Your task to perform on an android device: open app "ColorNote Notepad Notes" (install if not already installed) Image 0: 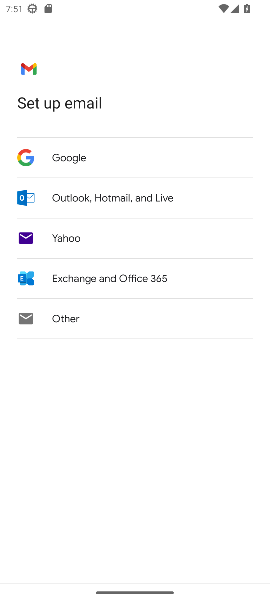
Step 0: press home button
Your task to perform on an android device: open app "ColorNote Notepad Notes" (install if not already installed) Image 1: 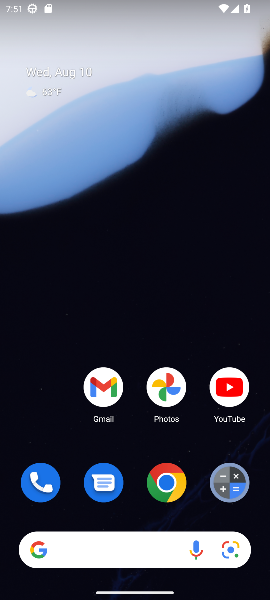
Step 1: drag from (144, 404) to (247, 0)
Your task to perform on an android device: open app "ColorNote Notepad Notes" (install if not already installed) Image 2: 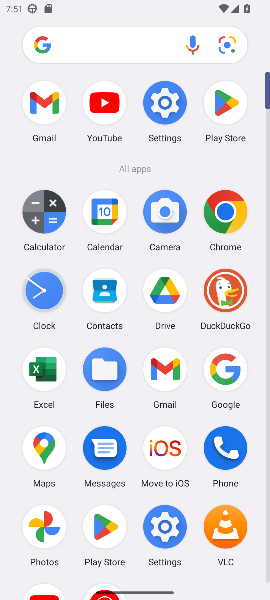
Step 2: click (102, 537)
Your task to perform on an android device: open app "ColorNote Notepad Notes" (install if not already installed) Image 3: 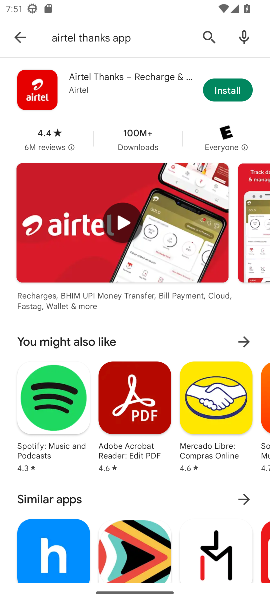
Step 3: click (108, 37)
Your task to perform on an android device: open app "ColorNote Notepad Notes" (install if not already installed) Image 4: 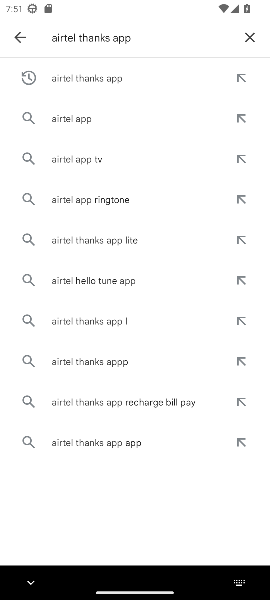
Step 4: click (250, 30)
Your task to perform on an android device: open app "ColorNote Notepad Notes" (install if not already installed) Image 5: 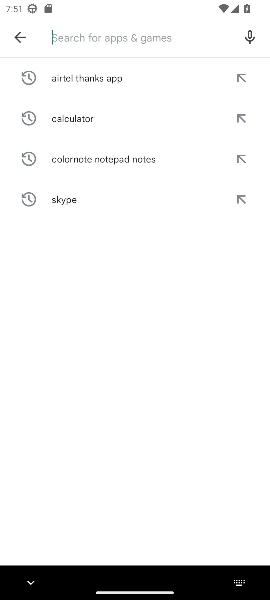
Step 5: type "ColoNote Notepad Notes"
Your task to perform on an android device: open app "ColorNote Notepad Notes" (install if not already installed) Image 6: 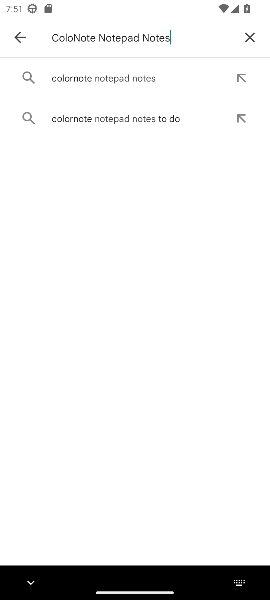
Step 6: click (138, 83)
Your task to perform on an android device: open app "ColorNote Notepad Notes" (install if not already installed) Image 7: 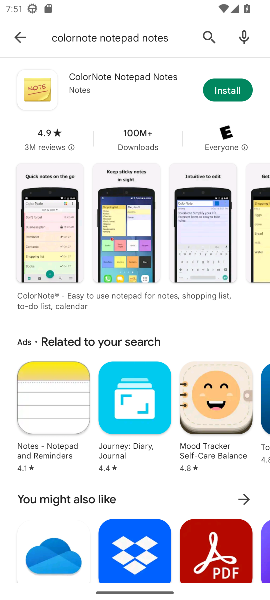
Step 7: click (230, 91)
Your task to perform on an android device: open app "ColorNote Notepad Notes" (install if not already installed) Image 8: 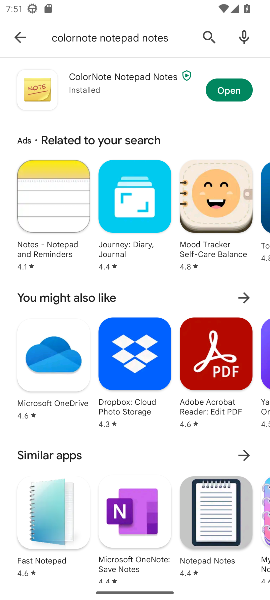
Step 8: click (237, 88)
Your task to perform on an android device: open app "ColorNote Notepad Notes" (install if not already installed) Image 9: 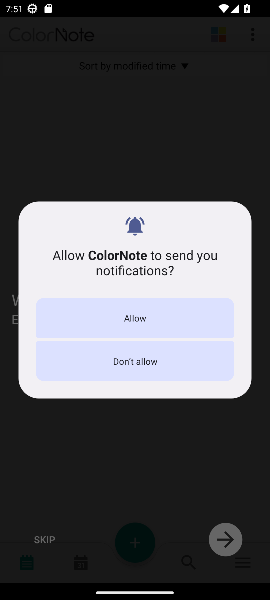
Step 9: click (140, 315)
Your task to perform on an android device: open app "ColorNote Notepad Notes" (install if not already installed) Image 10: 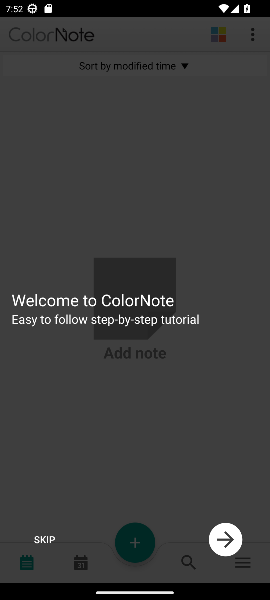
Step 10: click (41, 536)
Your task to perform on an android device: open app "ColorNote Notepad Notes" (install if not already installed) Image 11: 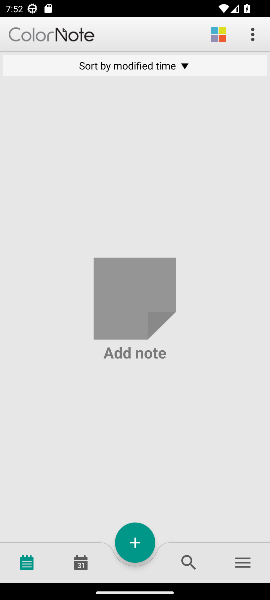
Step 11: task complete